Your task to perform on an android device: Open wifi settings Image 0: 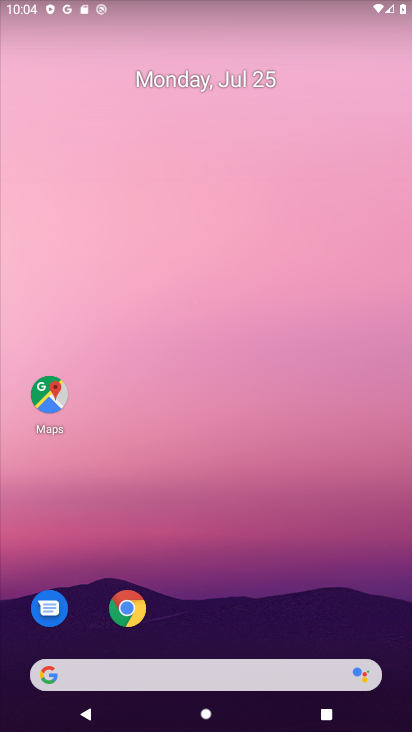
Step 0: drag from (225, 621) to (246, 104)
Your task to perform on an android device: Open wifi settings Image 1: 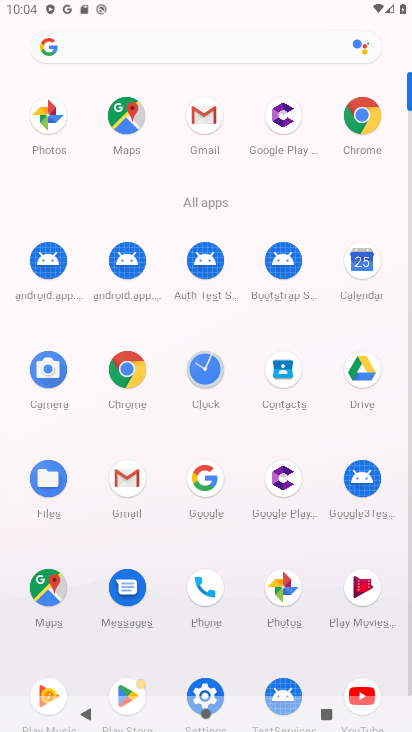
Step 1: drag from (207, 585) to (236, 210)
Your task to perform on an android device: Open wifi settings Image 2: 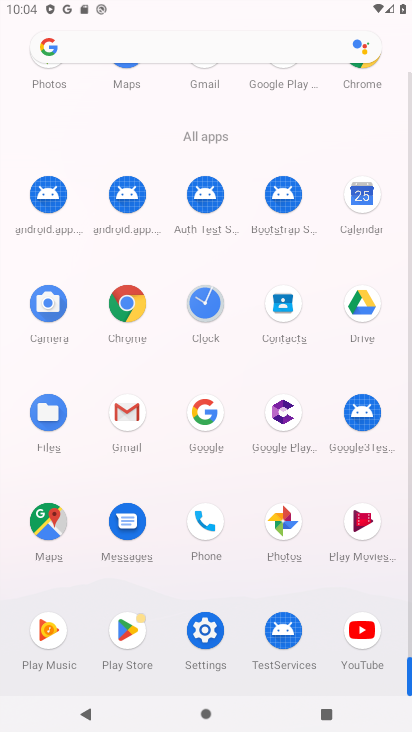
Step 2: click (192, 643)
Your task to perform on an android device: Open wifi settings Image 3: 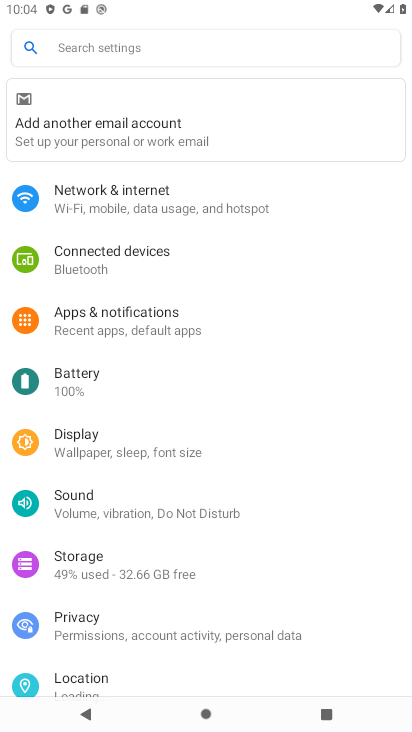
Step 3: click (131, 209)
Your task to perform on an android device: Open wifi settings Image 4: 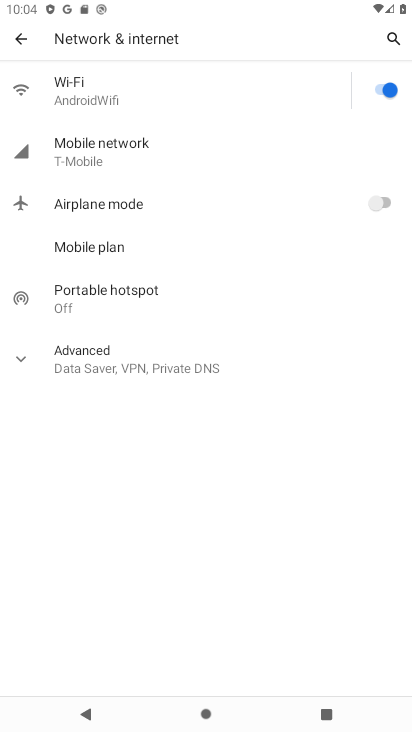
Step 4: click (108, 93)
Your task to perform on an android device: Open wifi settings Image 5: 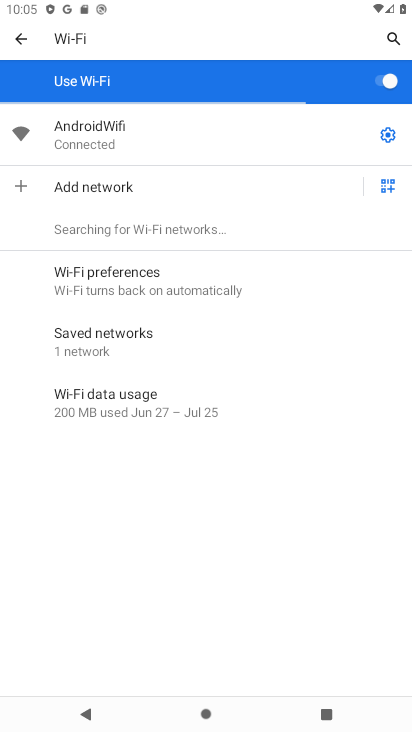
Step 5: task complete